Your task to perform on an android device: turn on wifi Image 0: 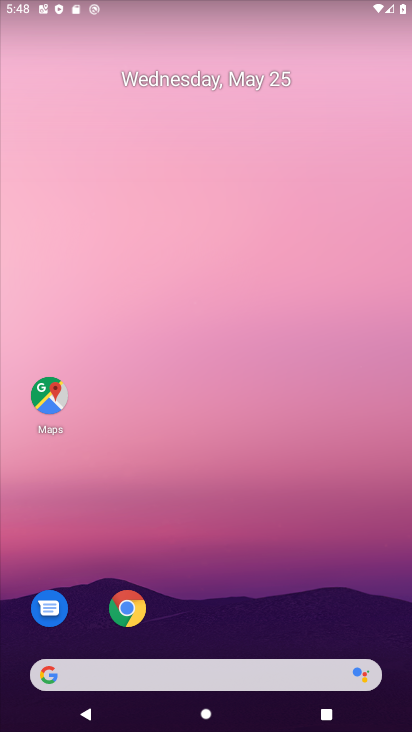
Step 0: drag from (204, 626) to (257, 33)
Your task to perform on an android device: turn on wifi Image 1: 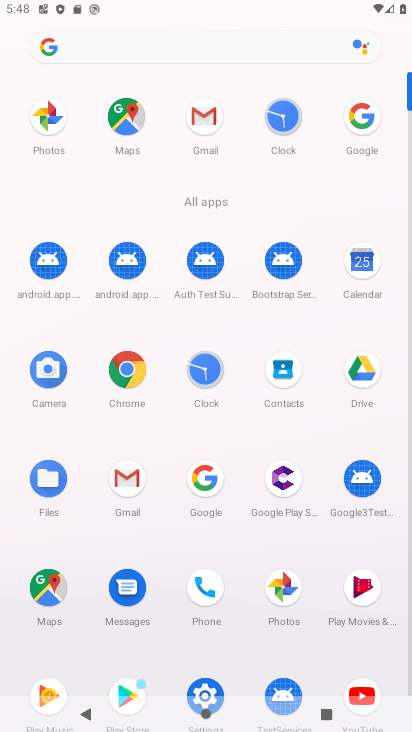
Step 1: click (209, 689)
Your task to perform on an android device: turn on wifi Image 2: 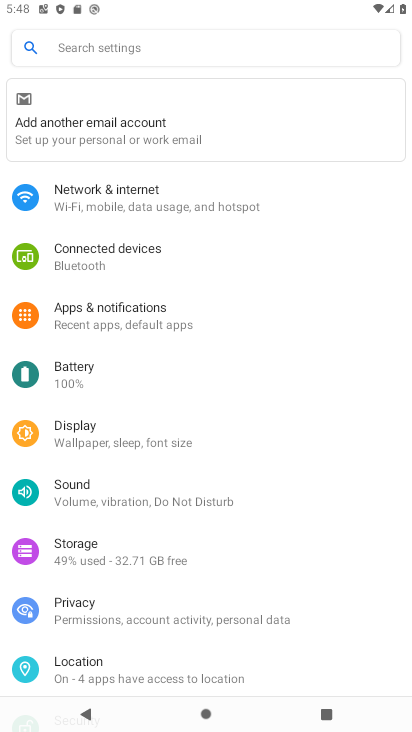
Step 2: click (104, 206)
Your task to perform on an android device: turn on wifi Image 3: 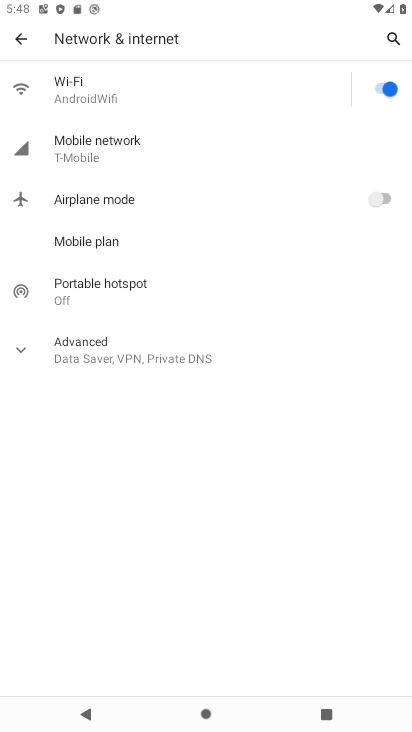
Step 3: task complete